Your task to perform on an android device: Go to ESPN.com Image 0: 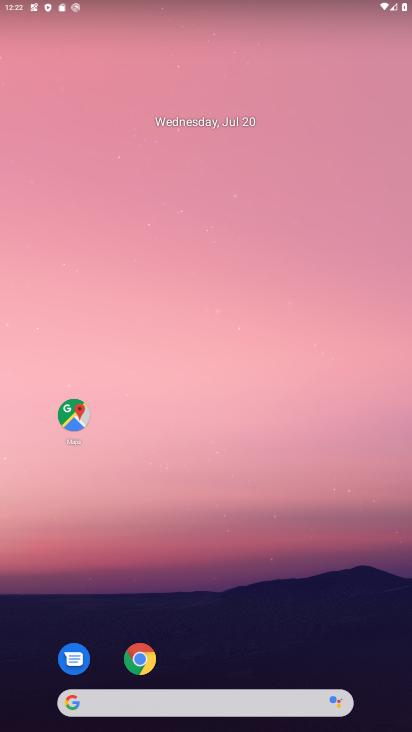
Step 0: click (217, 707)
Your task to perform on an android device: Go to ESPN.com Image 1: 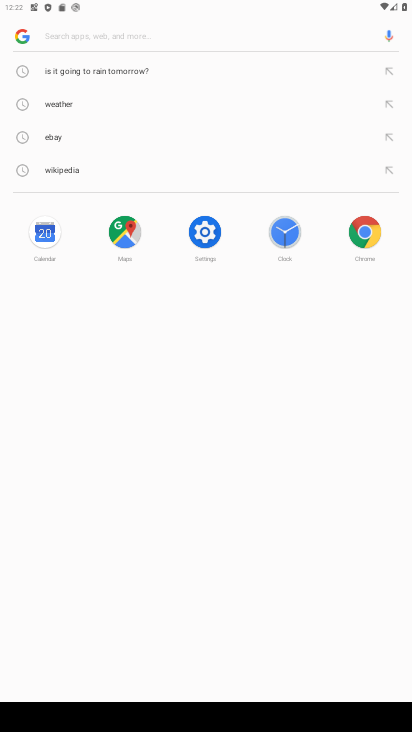
Step 1: type "ESPN.com"
Your task to perform on an android device: Go to ESPN.com Image 2: 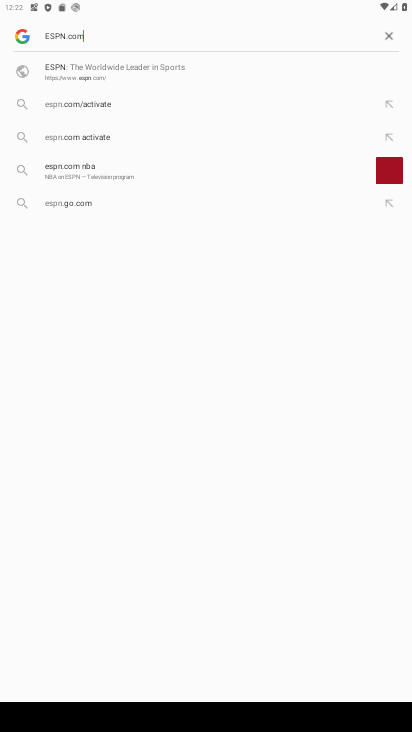
Step 2: press enter
Your task to perform on an android device: Go to ESPN.com Image 3: 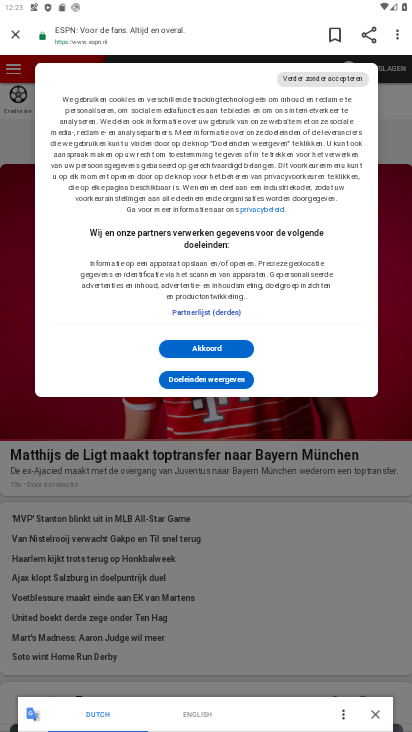
Step 3: task complete